Your task to perform on an android device: set the stopwatch Image 0: 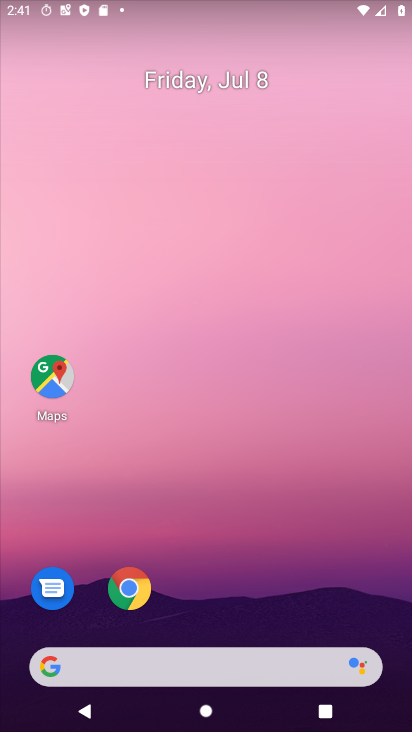
Step 0: press home button
Your task to perform on an android device: set the stopwatch Image 1: 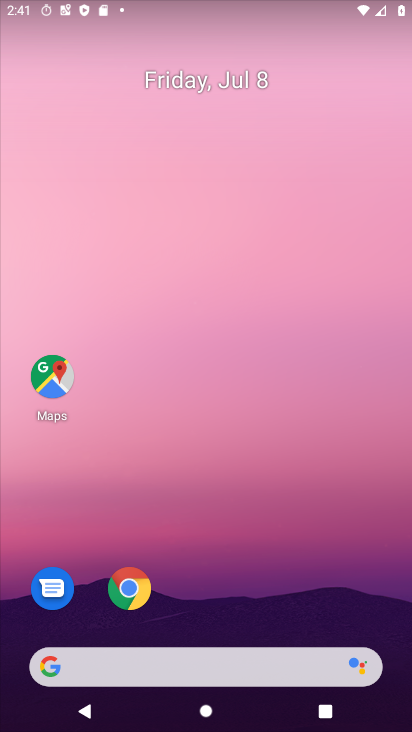
Step 1: drag from (219, 620) to (284, 43)
Your task to perform on an android device: set the stopwatch Image 2: 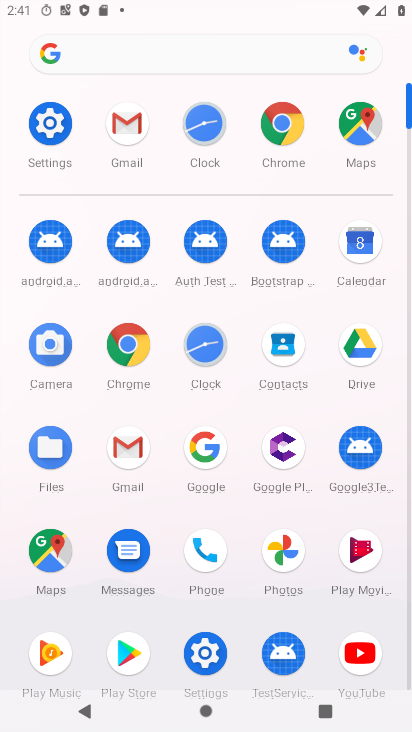
Step 2: click (209, 127)
Your task to perform on an android device: set the stopwatch Image 3: 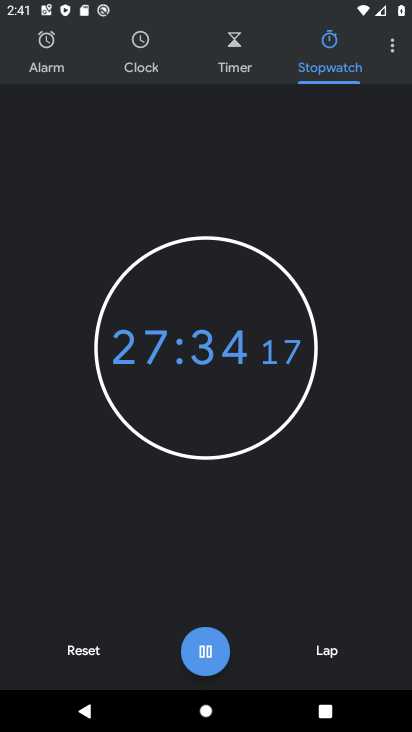
Step 3: task complete